Your task to perform on an android device: delete location history Image 0: 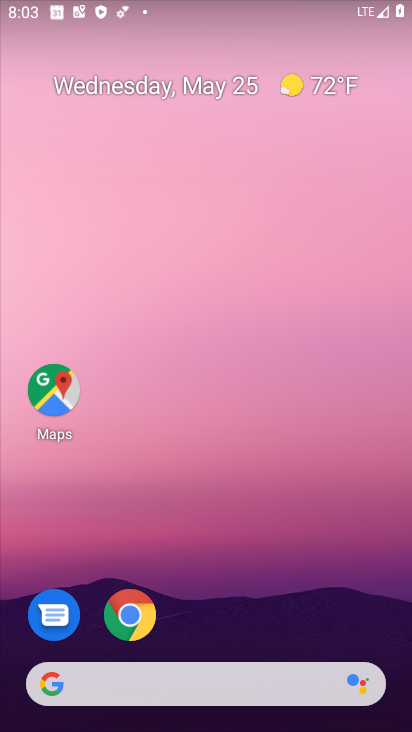
Step 0: click (44, 390)
Your task to perform on an android device: delete location history Image 1: 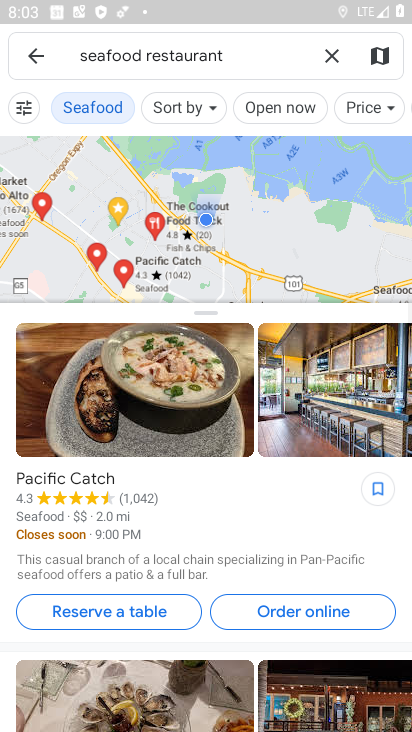
Step 1: click (37, 52)
Your task to perform on an android device: delete location history Image 2: 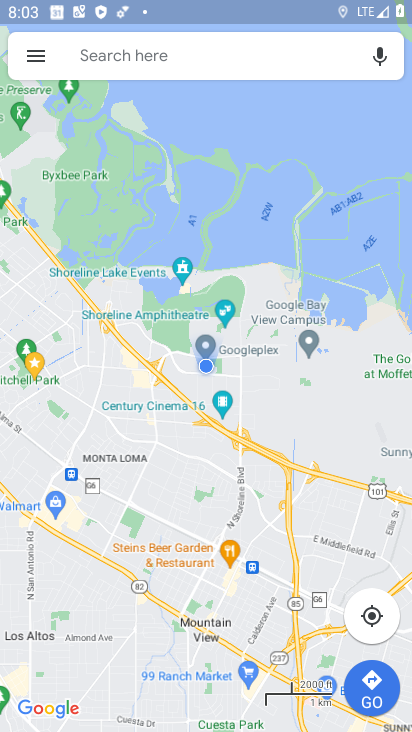
Step 2: click (37, 53)
Your task to perform on an android device: delete location history Image 3: 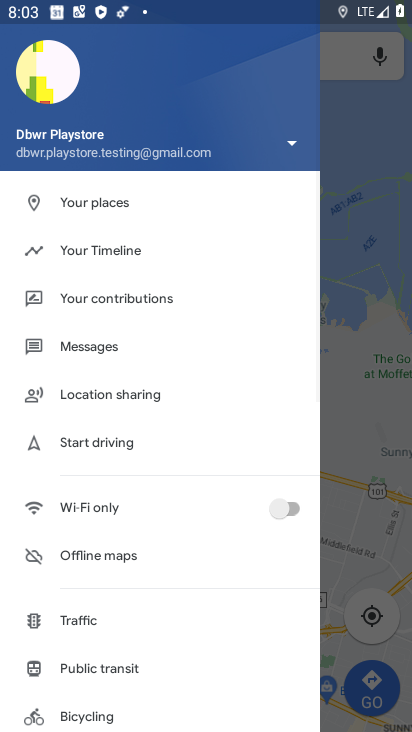
Step 3: click (113, 240)
Your task to perform on an android device: delete location history Image 4: 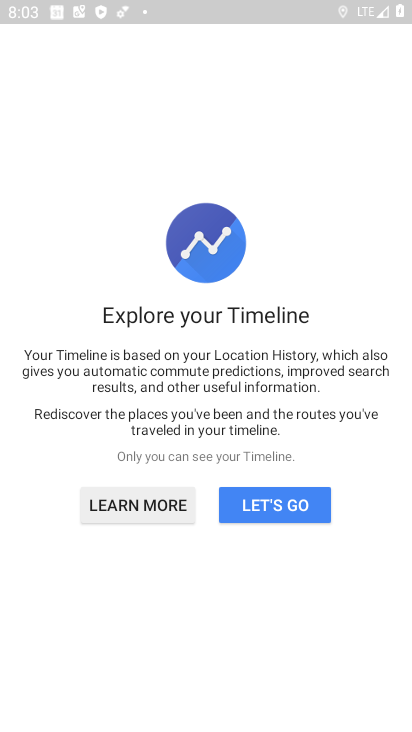
Step 4: click (277, 504)
Your task to perform on an android device: delete location history Image 5: 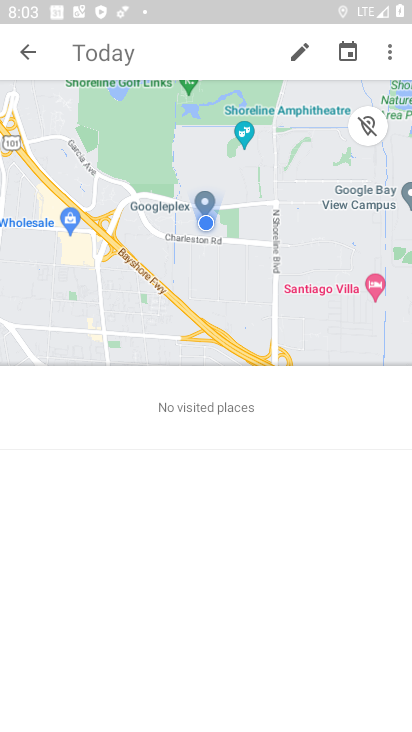
Step 5: click (384, 53)
Your task to perform on an android device: delete location history Image 6: 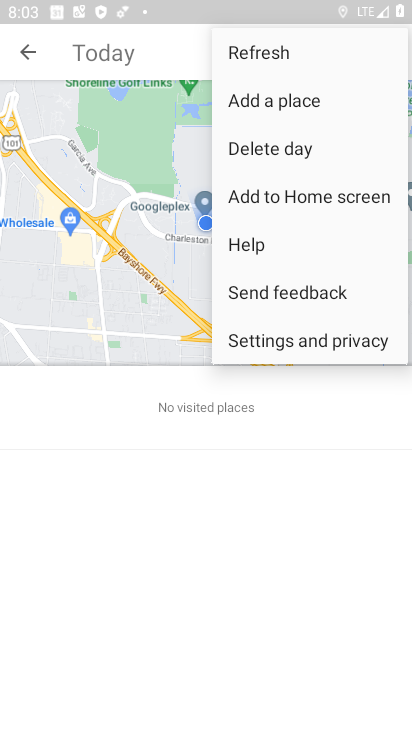
Step 6: click (326, 335)
Your task to perform on an android device: delete location history Image 7: 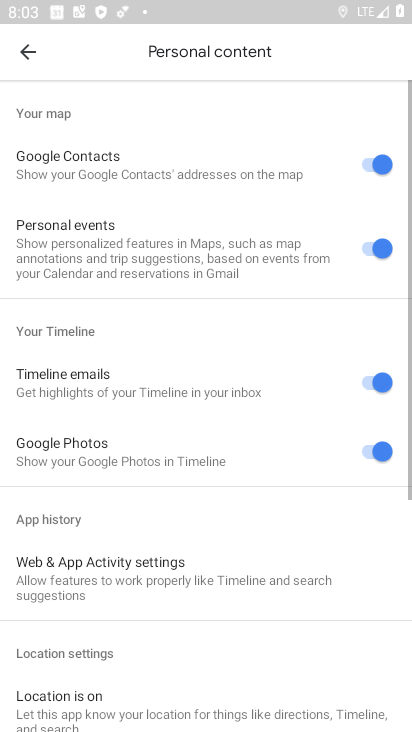
Step 7: drag from (232, 532) to (235, 114)
Your task to perform on an android device: delete location history Image 8: 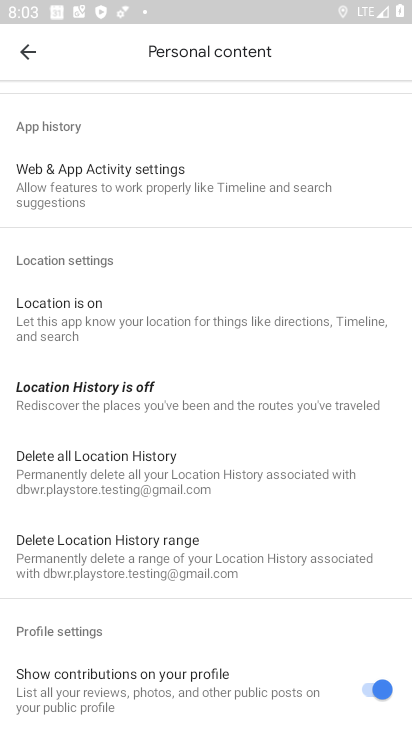
Step 8: click (173, 459)
Your task to perform on an android device: delete location history Image 9: 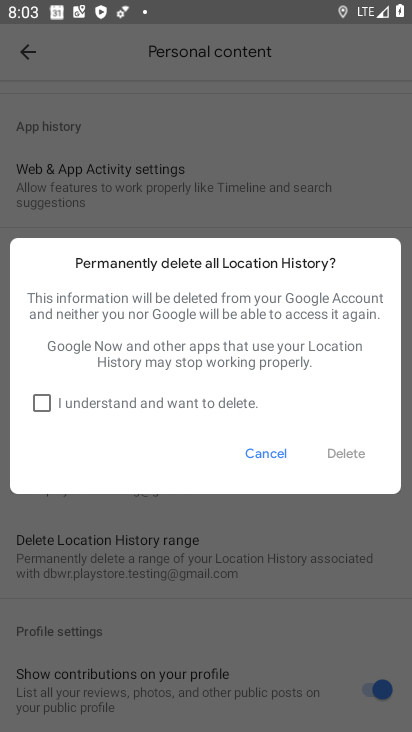
Step 9: click (36, 399)
Your task to perform on an android device: delete location history Image 10: 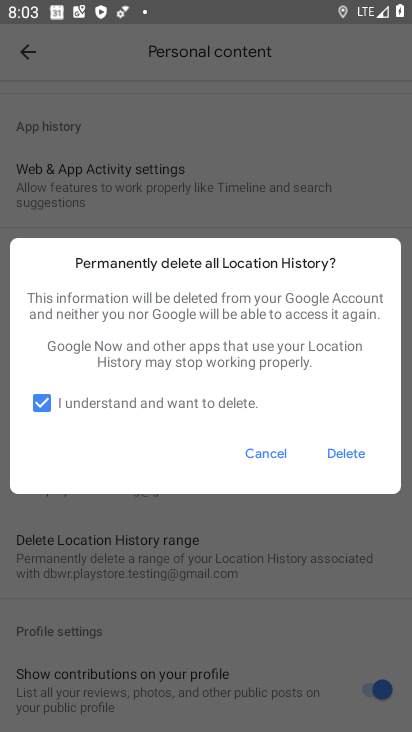
Step 10: click (343, 450)
Your task to perform on an android device: delete location history Image 11: 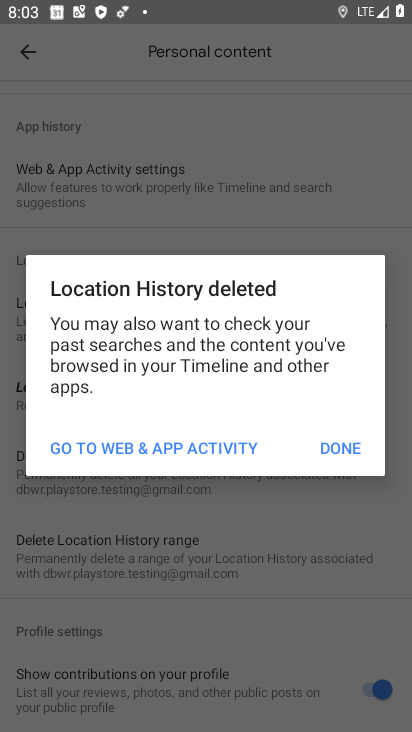
Step 11: click (343, 442)
Your task to perform on an android device: delete location history Image 12: 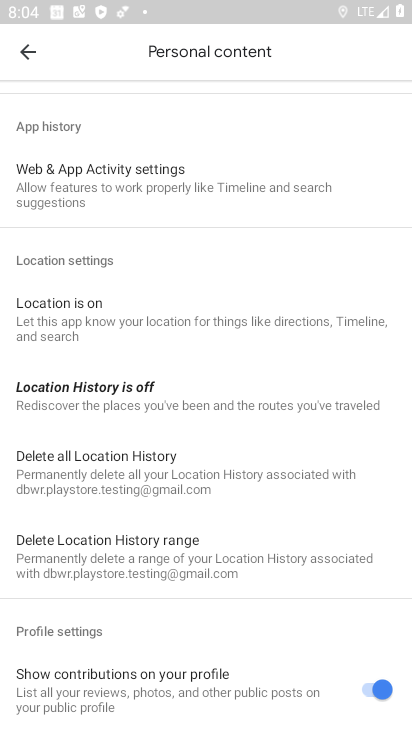
Step 12: task complete